Your task to perform on an android device: What is the recent news? Image 0: 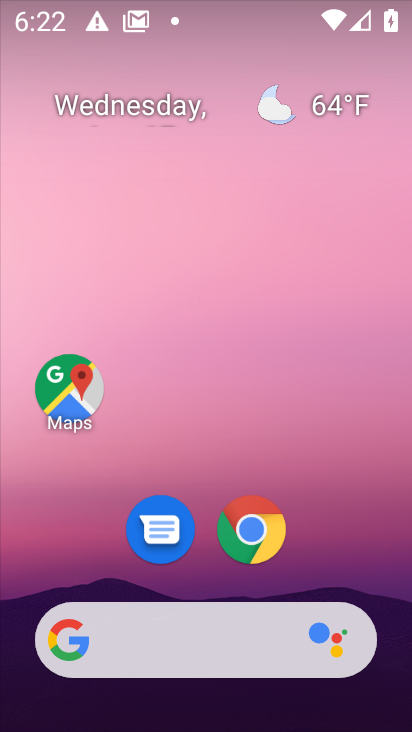
Step 0: click (182, 635)
Your task to perform on an android device: What is the recent news? Image 1: 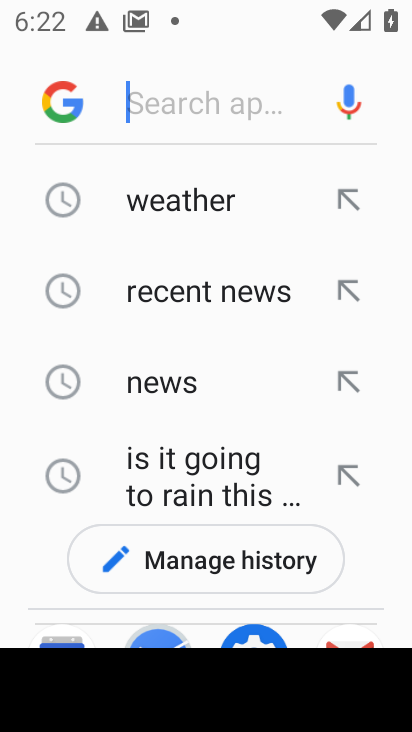
Step 1: click (182, 290)
Your task to perform on an android device: What is the recent news? Image 2: 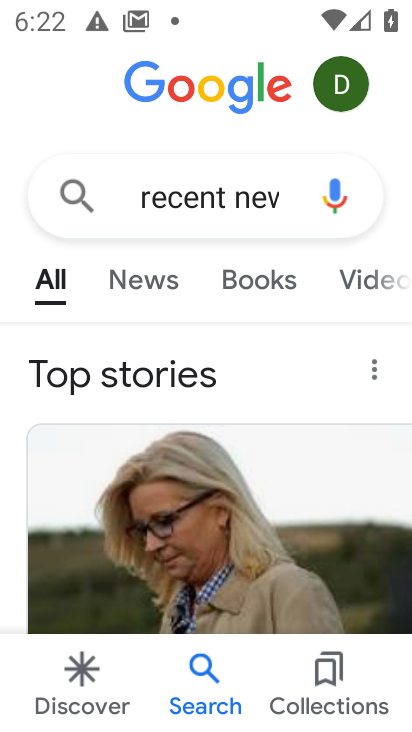
Step 2: task complete